Your task to perform on an android device: Open the calendar app, open the side menu, and click the "Day" option Image 0: 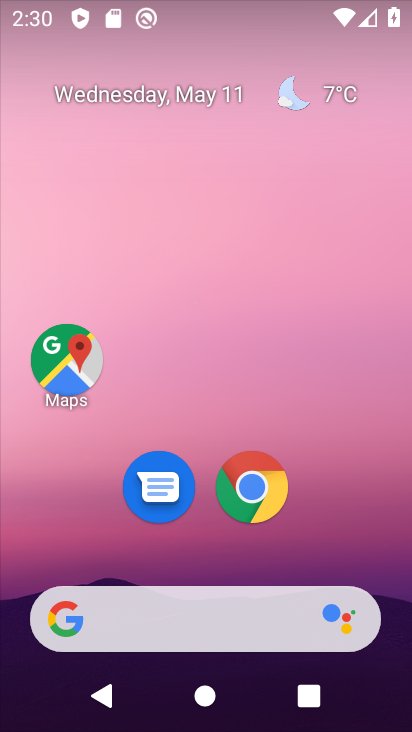
Step 0: drag from (196, 551) to (249, 0)
Your task to perform on an android device: Open the calendar app, open the side menu, and click the "Day" option Image 1: 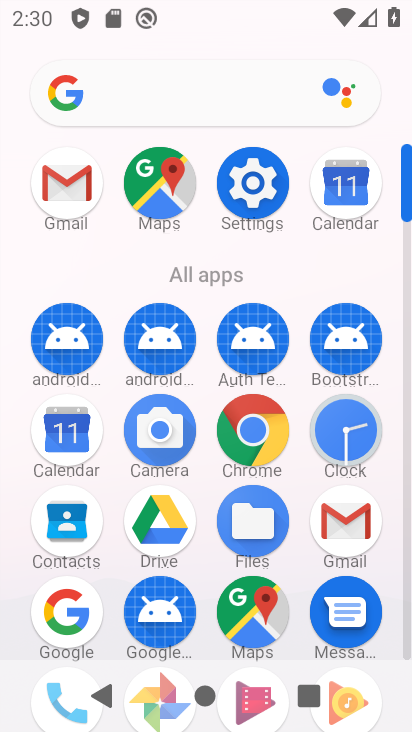
Step 1: click (67, 430)
Your task to perform on an android device: Open the calendar app, open the side menu, and click the "Day" option Image 2: 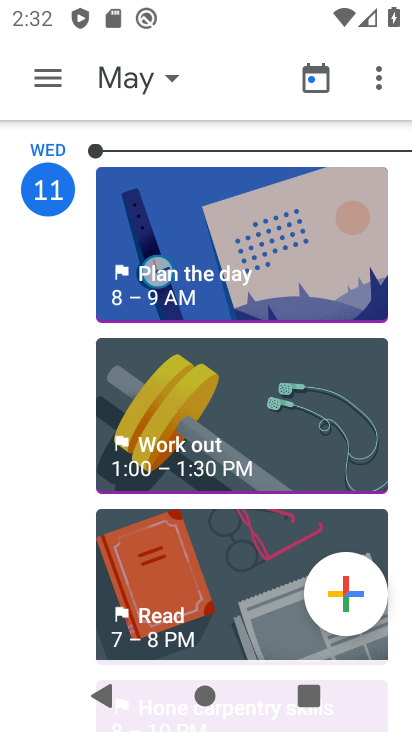
Step 2: click (50, 67)
Your task to perform on an android device: Open the calendar app, open the side menu, and click the "Day" option Image 3: 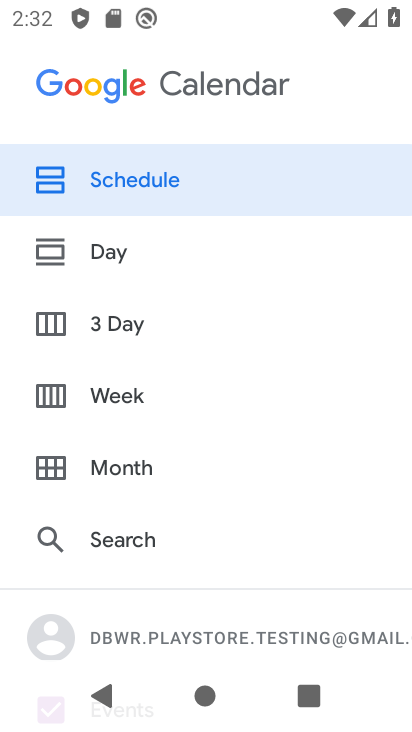
Step 3: click (102, 252)
Your task to perform on an android device: Open the calendar app, open the side menu, and click the "Day" option Image 4: 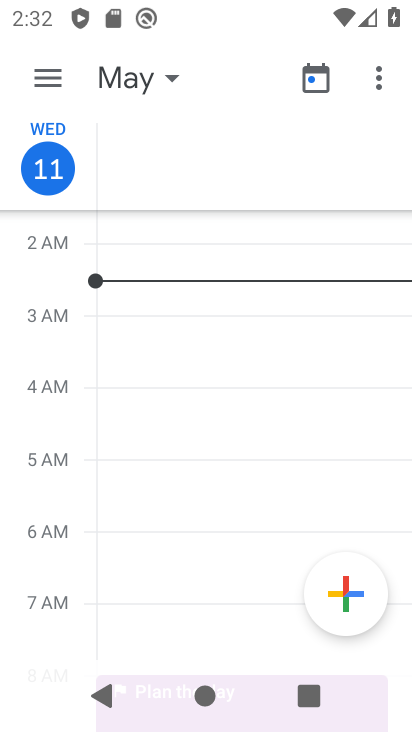
Step 4: task complete